Your task to perform on an android device: read, delete, or share a saved page in the chrome app Image 0: 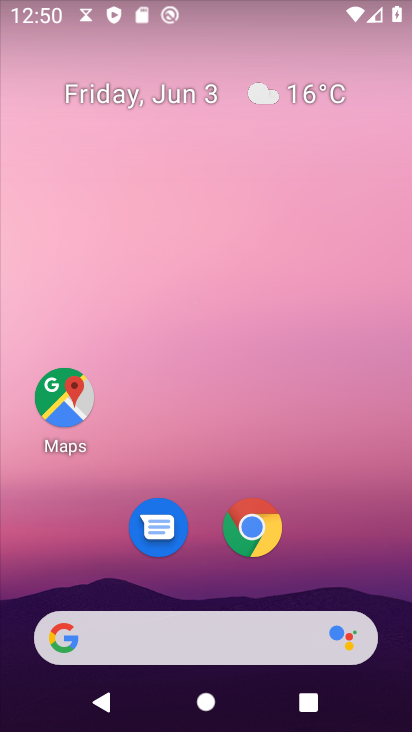
Step 0: click (259, 522)
Your task to perform on an android device: read, delete, or share a saved page in the chrome app Image 1: 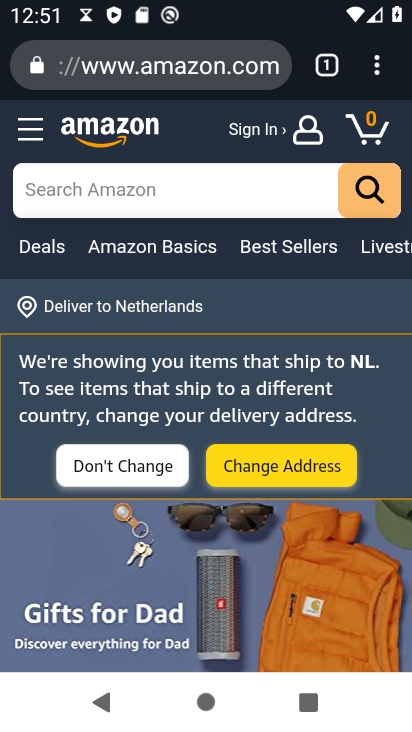
Step 1: drag from (379, 64) to (175, 502)
Your task to perform on an android device: read, delete, or share a saved page in the chrome app Image 2: 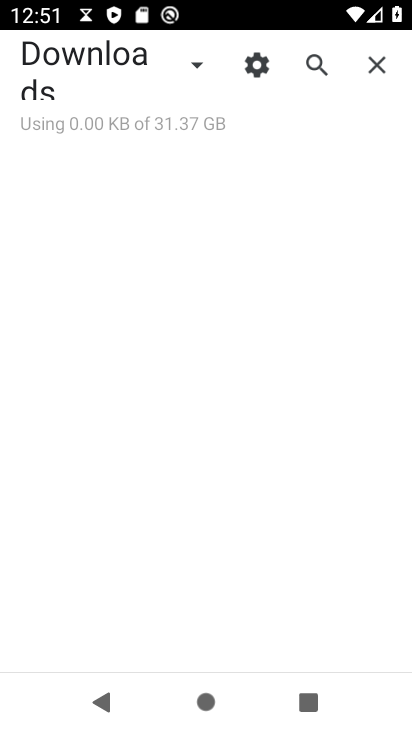
Step 2: click (197, 59)
Your task to perform on an android device: read, delete, or share a saved page in the chrome app Image 3: 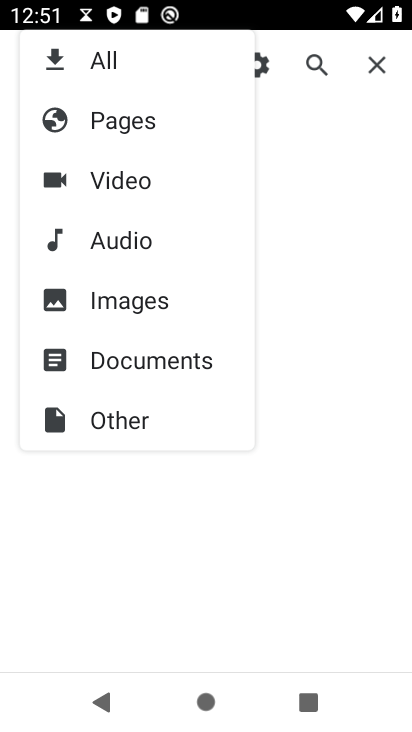
Step 3: click (146, 120)
Your task to perform on an android device: read, delete, or share a saved page in the chrome app Image 4: 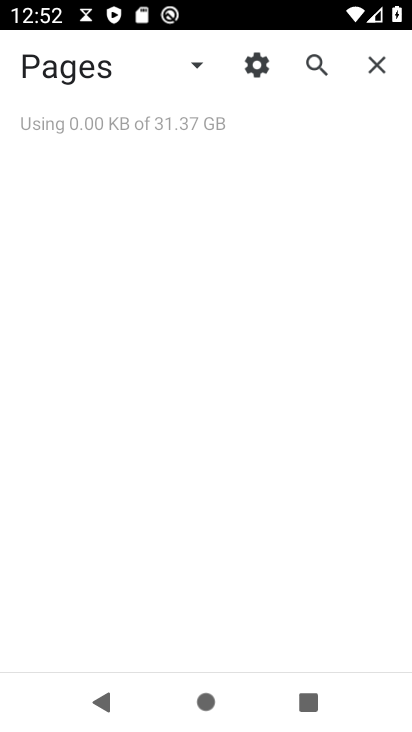
Step 4: task complete